Your task to perform on an android device: Turn on the flashlight Image 0: 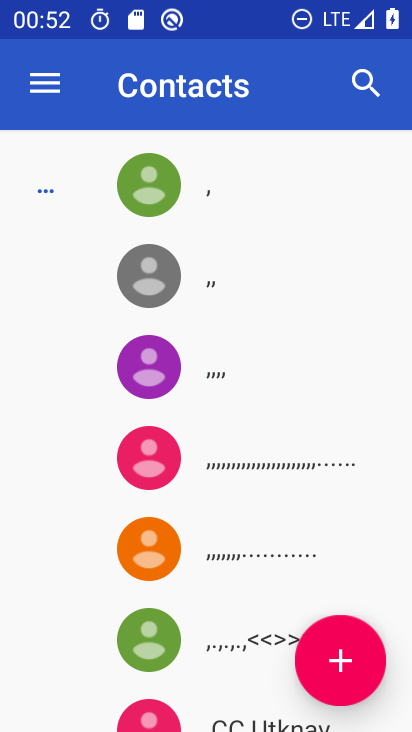
Step 0: press home button
Your task to perform on an android device: Turn on the flashlight Image 1: 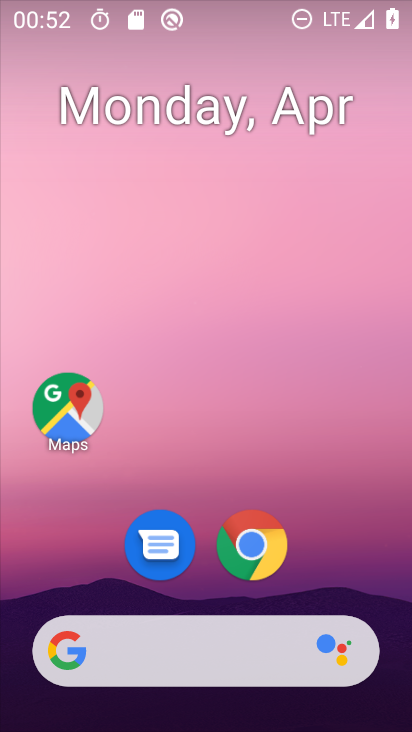
Step 1: drag from (288, 314) to (303, 149)
Your task to perform on an android device: Turn on the flashlight Image 2: 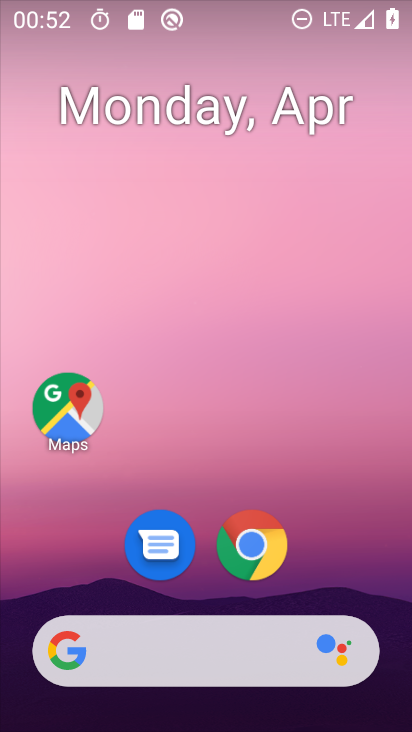
Step 2: drag from (310, 470) to (312, 169)
Your task to perform on an android device: Turn on the flashlight Image 3: 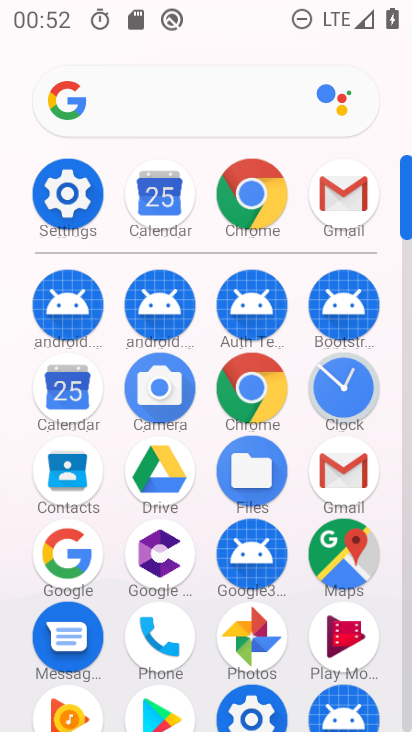
Step 3: click (66, 189)
Your task to perform on an android device: Turn on the flashlight Image 4: 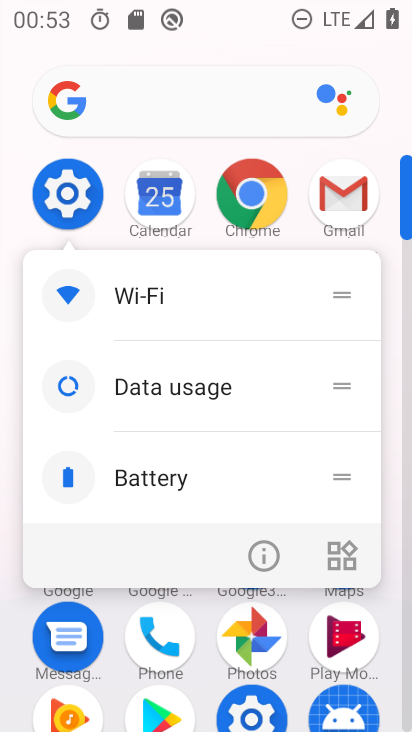
Step 4: click (63, 175)
Your task to perform on an android device: Turn on the flashlight Image 5: 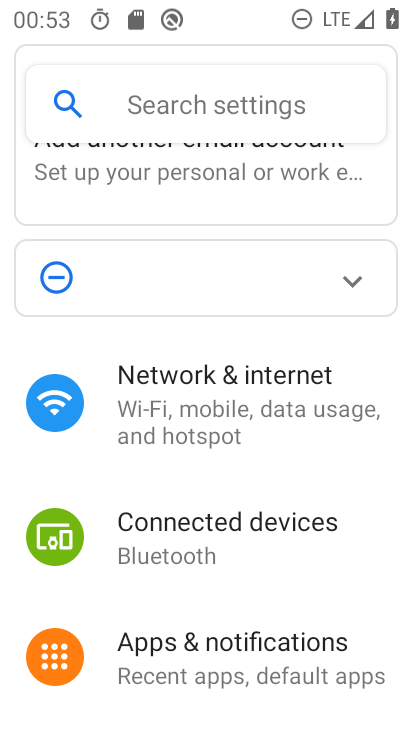
Step 5: task complete